Your task to perform on an android device: turn notification dots on Image 0: 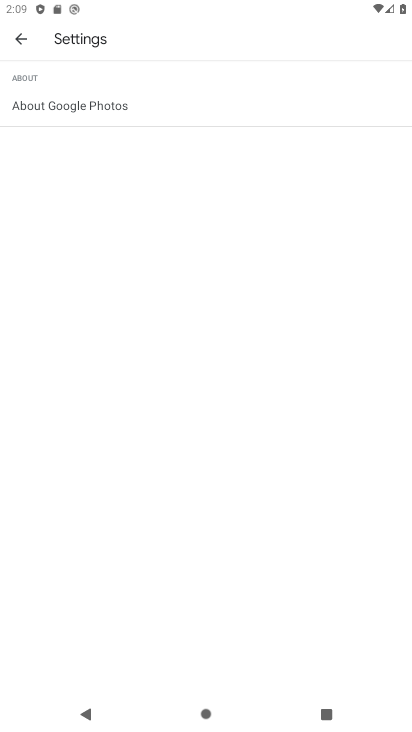
Step 0: press home button
Your task to perform on an android device: turn notification dots on Image 1: 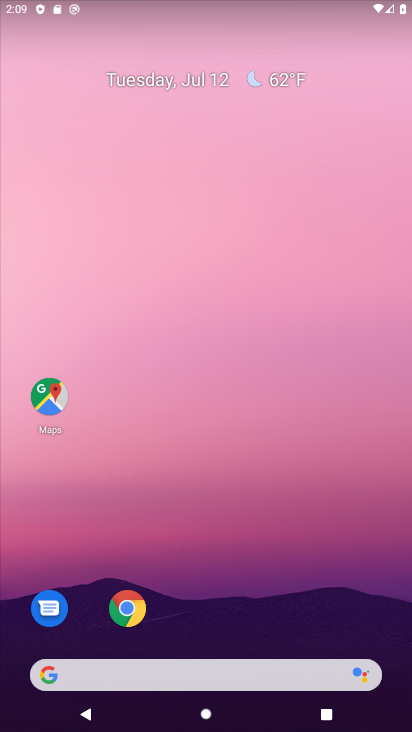
Step 1: drag from (179, 678) to (367, 134)
Your task to perform on an android device: turn notification dots on Image 2: 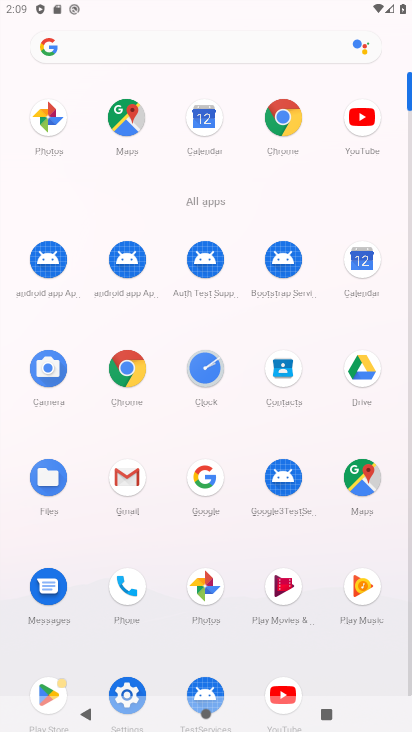
Step 2: click (129, 683)
Your task to perform on an android device: turn notification dots on Image 3: 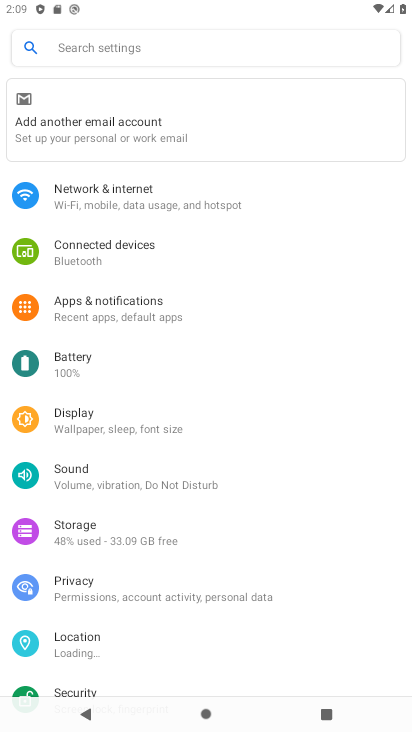
Step 3: click (137, 300)
Your task to perform on an android device: turn notification dots on Image 4: 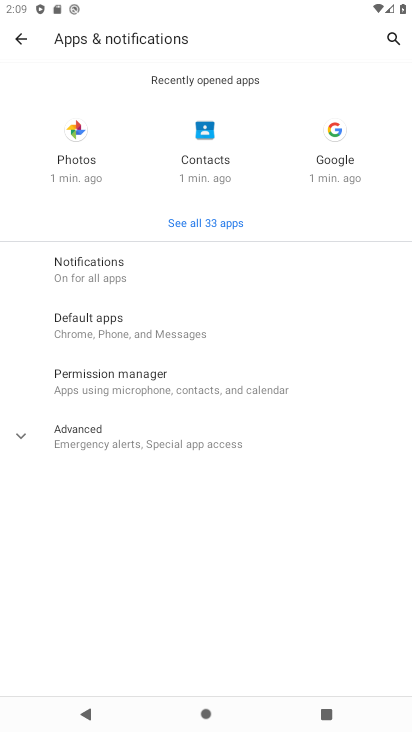
Step 4: click (125, 275)
Your task to perform on an android device: turn notification dots on Image 5: 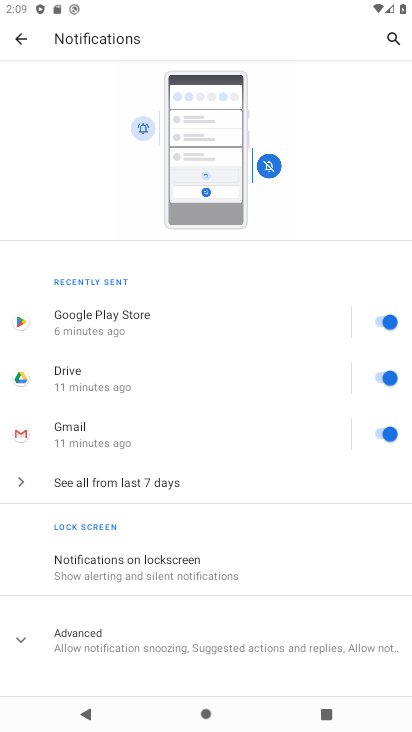
Step 5: click (141, 638)
Your task to perform on an android device: turn notification dots on Image 6: 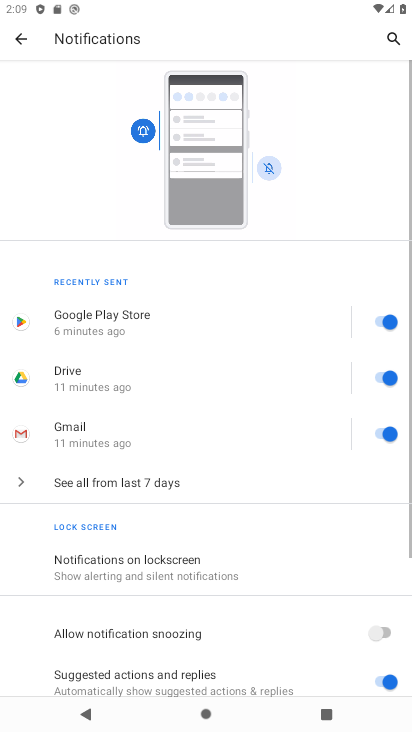
Step 6: task complete